Your task to perform on an android device: Search for pizza restaurants on Maps Image 0: 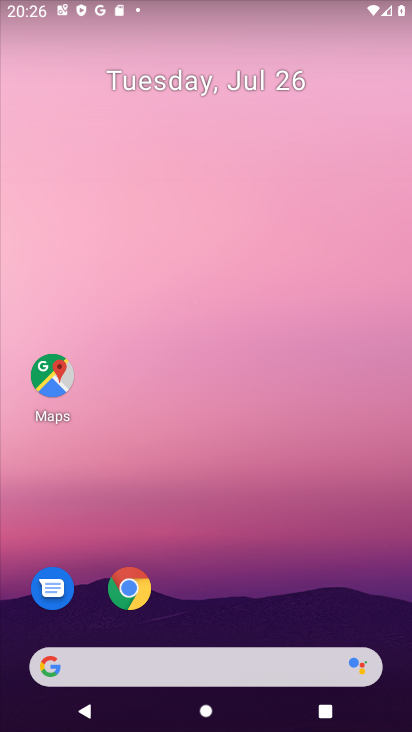
Step 0: press home button
Your task to perform on an android device: Search for pizza restaurants on Maps Image 1: 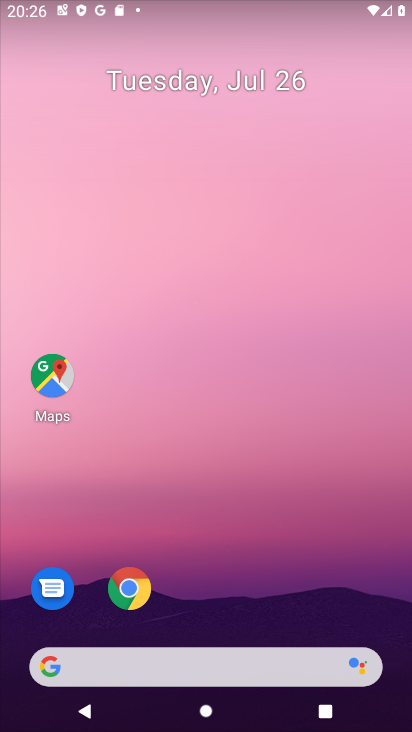
Step 1: click (57, 385)
Your task to perform on an android device: Search for pizza restaurants on Maps Image 2: 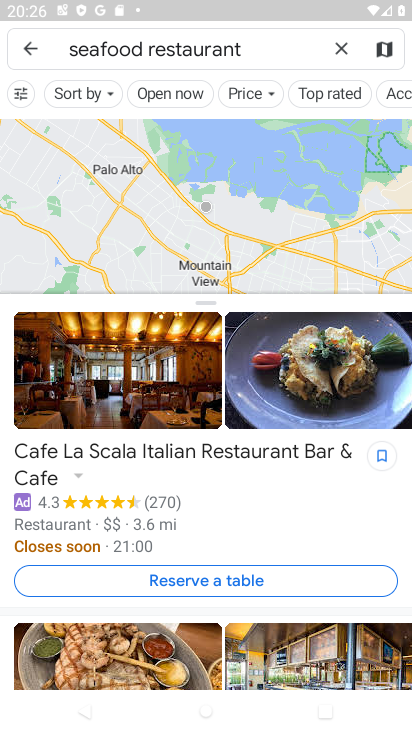
Step 2: click (25, 50)
Your task to perform on an android device: Search for pizza restaurants on Maps Image 3: 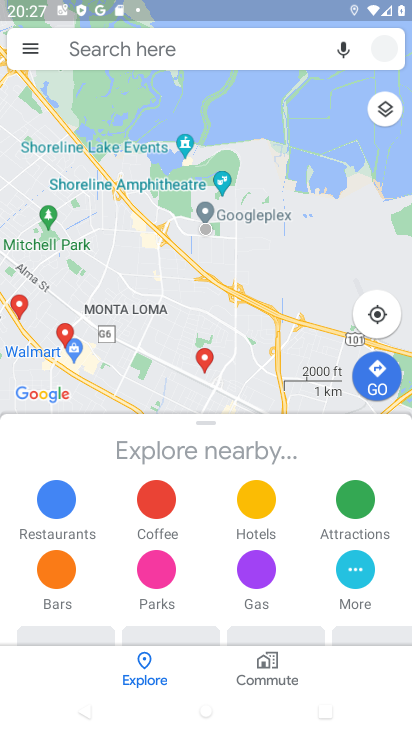
Step 3: click (194, 46)
Your task to perform on an android device: Search for pizza restaurants on Maps Image 4: 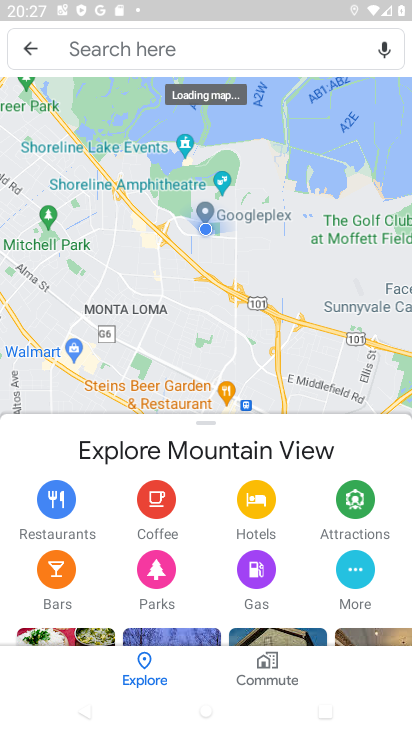
Step 4: type "pizza restaurants"
Your task to perform on an android device: Search for pizza restaurants on Maps Image 5: 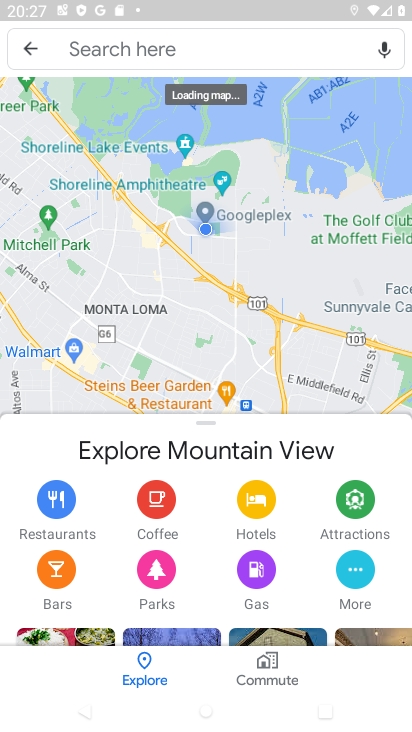
Step 5: click (109, 51)
Your task to perform on an android device: Search for pizza restaurants on Maps Image 6: 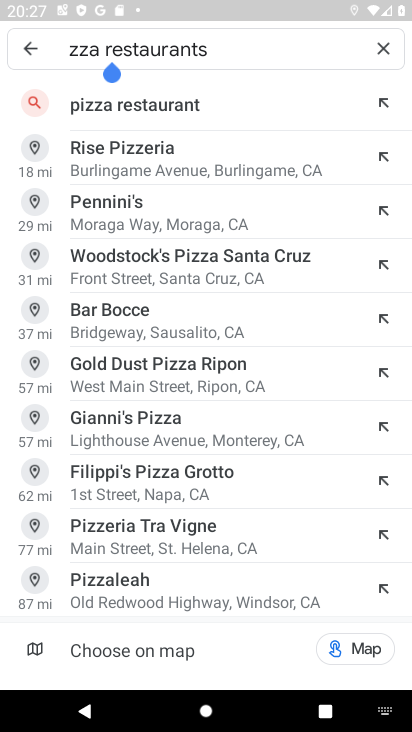
Step 6: click (151, 107)
Your task to perform on an android device: Search for pizza restaurants on Maps Image 7: 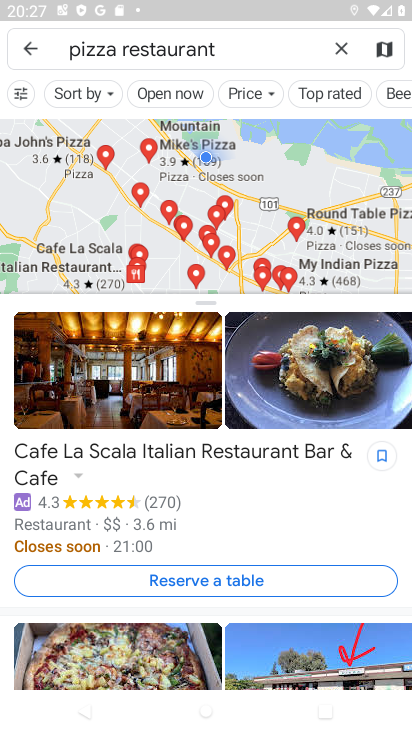
Step 7: task complete